Your task to perform on an android device: empty trash in the gmail app Image 0: 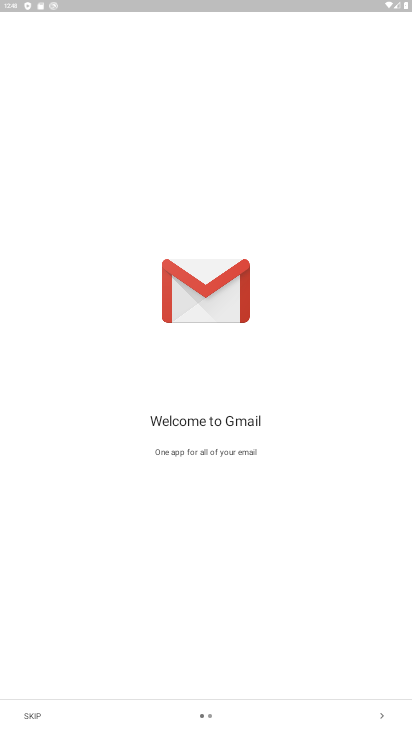
Step 0: press home button
Your task to perform on an android device: empty trash in the gmail app Image 1: 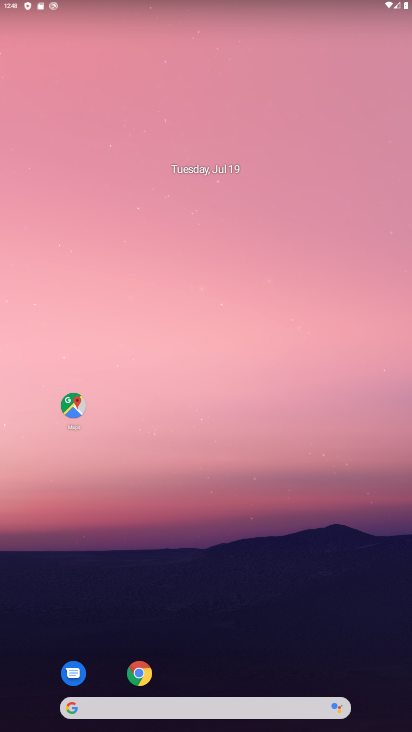
Step 1: drag from (211, 681) to (136, 65)
Your task to perform on an android device: empty trash in the gmail app Image 2: 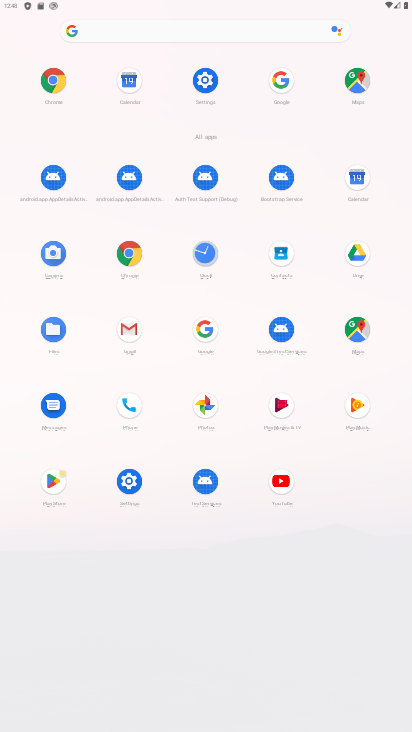
Step 2: click (138, 328)
Your task to perform on an android device: empty trash in the gmail app Image 3: 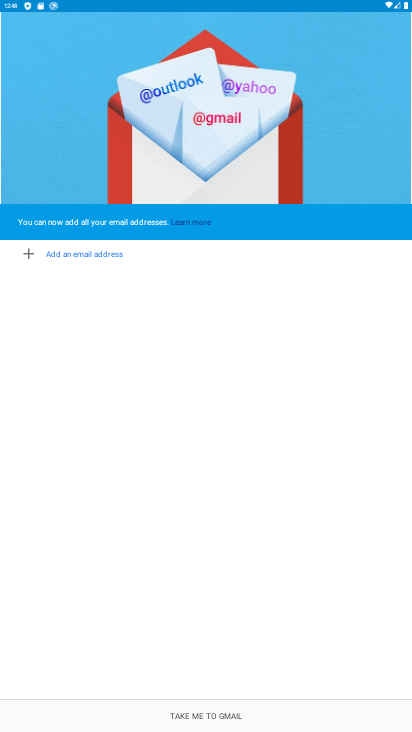
Step 3: click (183, 718)
Your task to perform on an android device: empty trash in the gmail app Image 4: 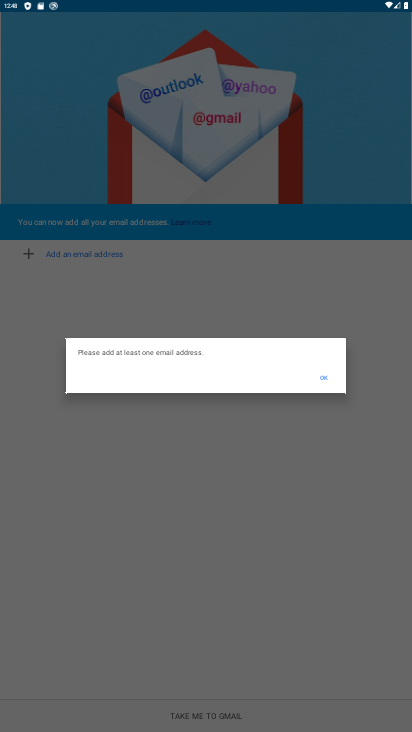
Step 4: task complete